Your task to perform on an android device: open the mobile data screen to see how much data has been used Image 0: 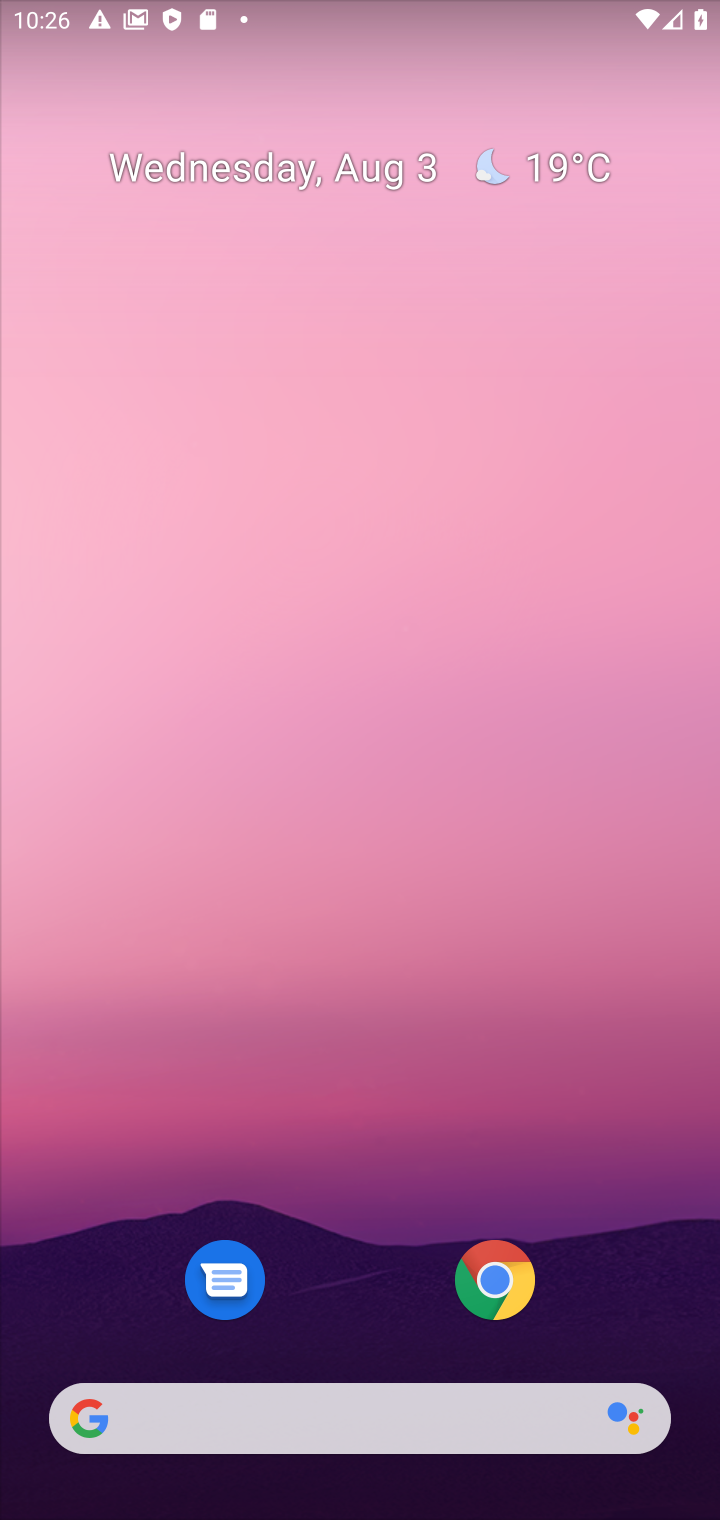
Step 0: drag from (342, 1065) to (347, 532)
Your task to perform on an android device: open the mobile data screen to see how much data has been used Image 1: 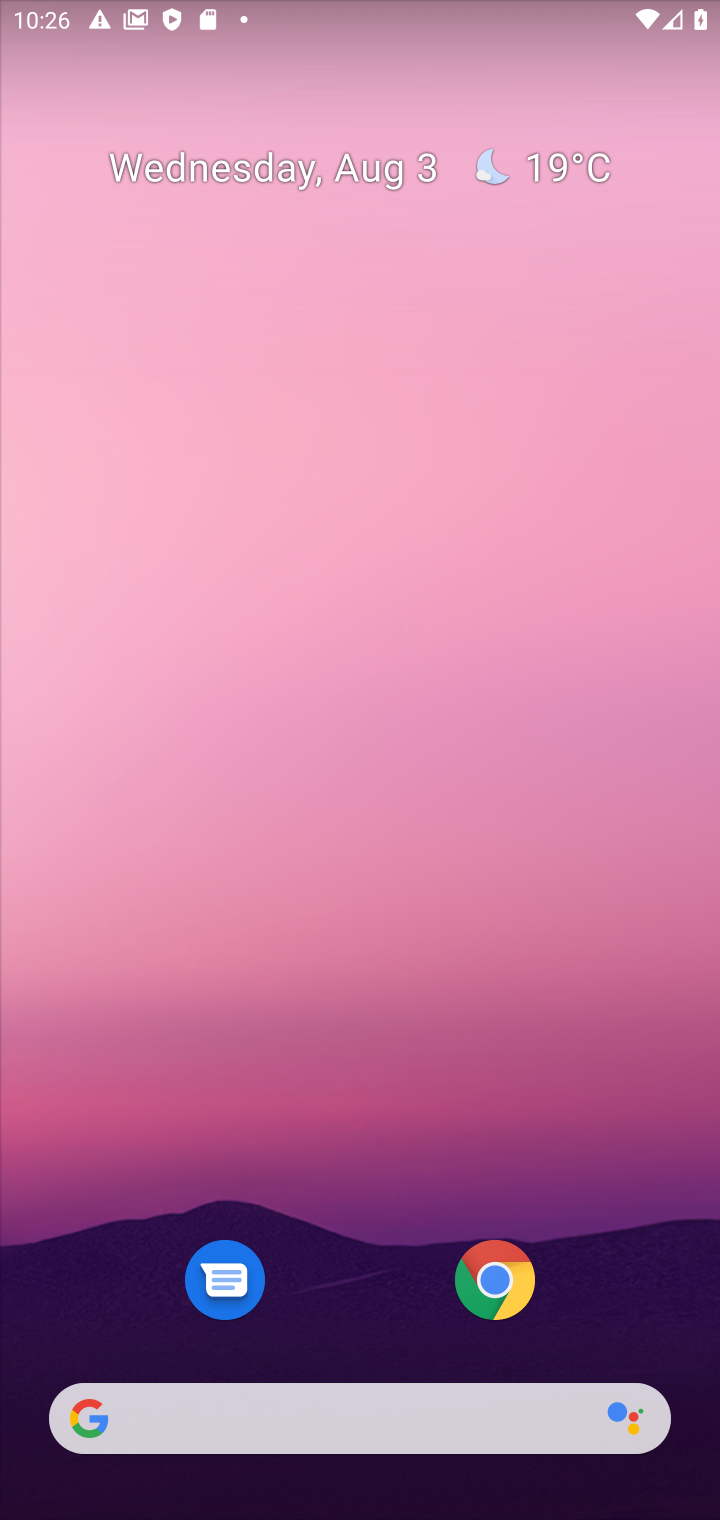
Step 1: drag from (376, 1162) to (430, 405)
Your task to perform on an android device: open the mobile data screen to see how much data has been used Image 2: 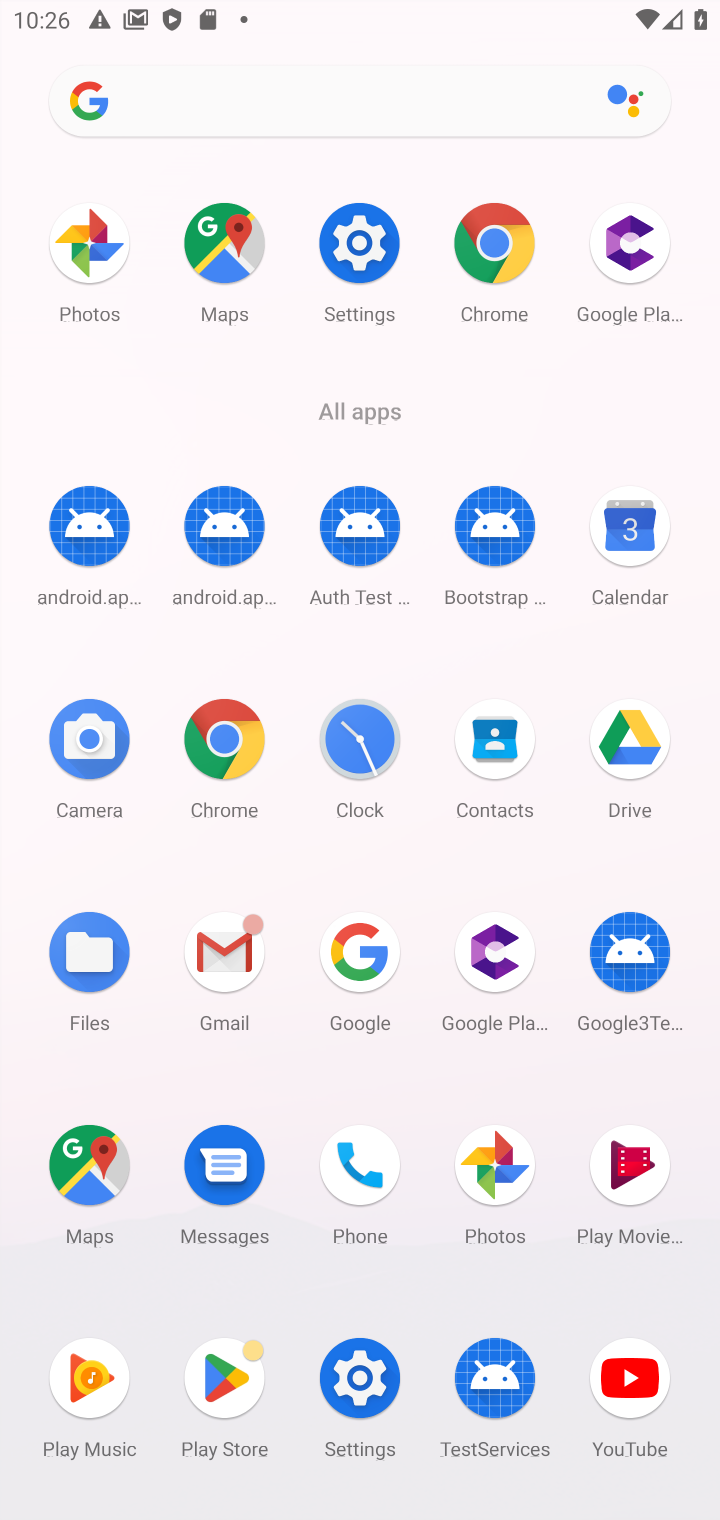
Step 2: click (362, 1369)
Your task to perform on an android device: open the mobile data screen to see how much data has been used Image 3: 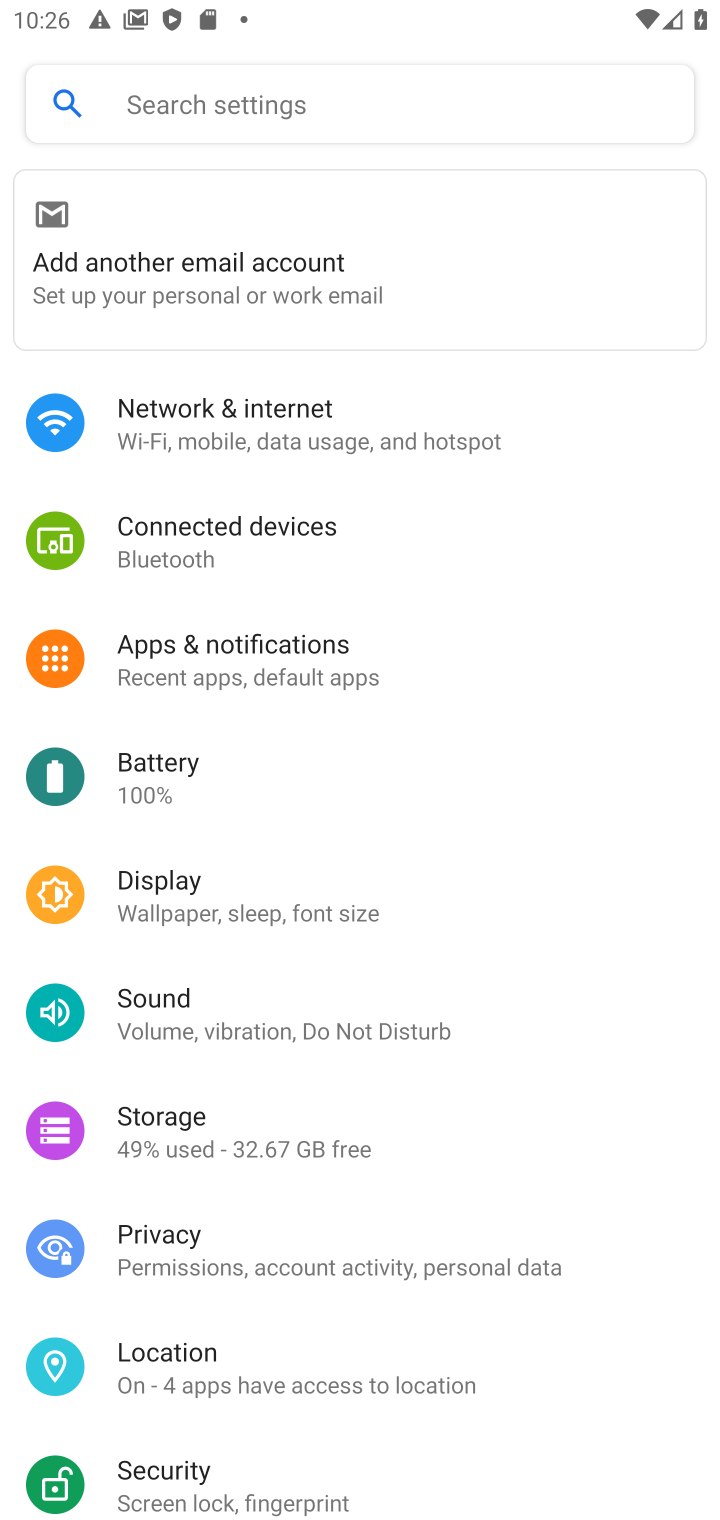
Step 3: click (178, 437)
Your task to perform on an android device: open the mobile data screen to see how much data has been used Image 4: 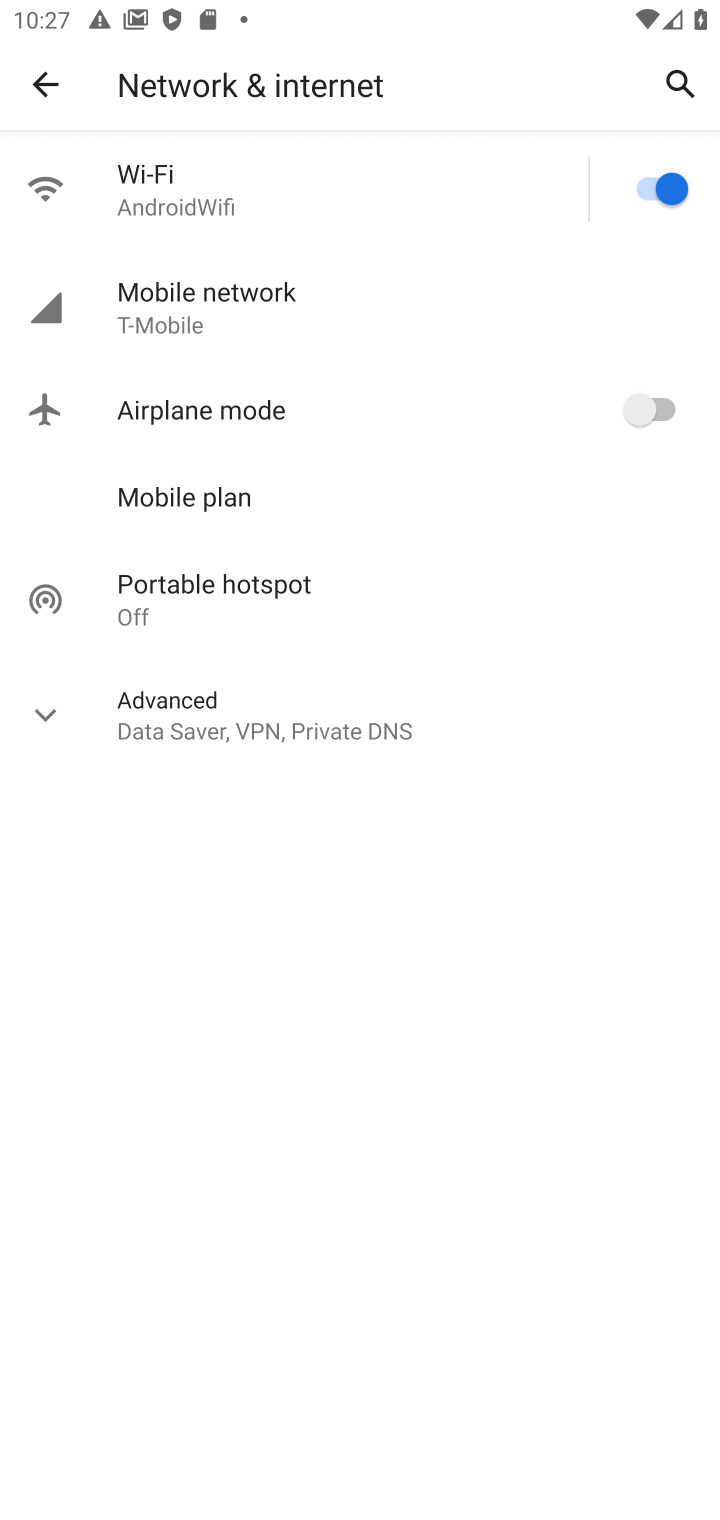
Step 4: click (210, 294)
Your task to perform on an android device: open the mobile data screen to see how much data has been used Image 5: 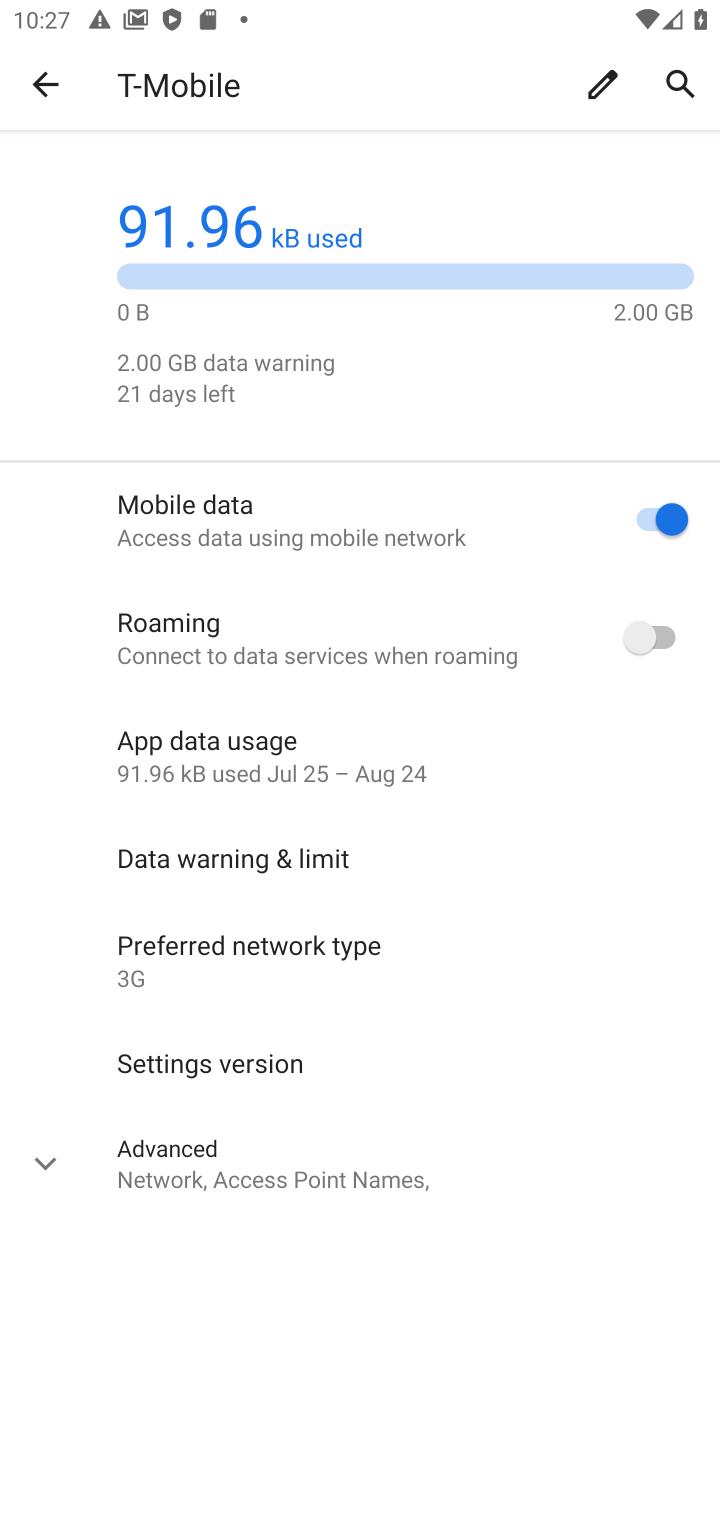
Step 5: task complete